Your task to perform on an android device: check battery use Image 0: 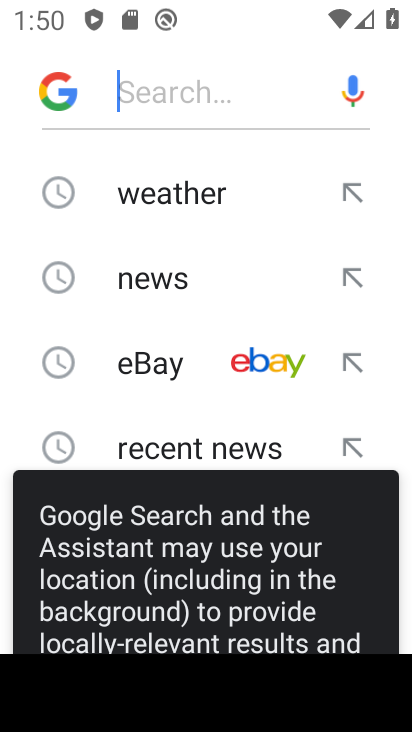
Step 0: press back button
Your task to perform on an android device: check battery use Image 1: 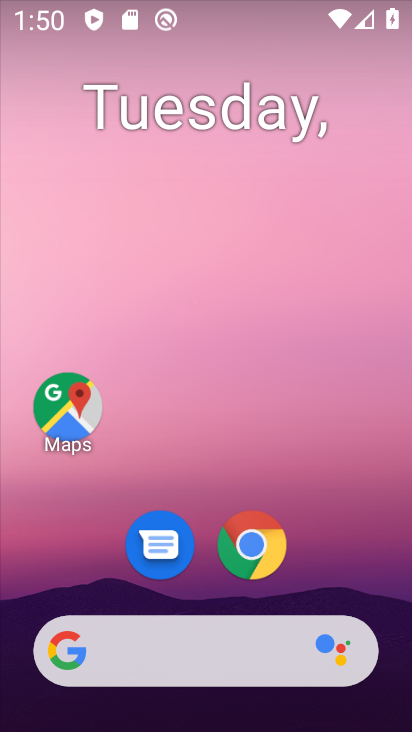
Step 1: drag from (363, 545) to (249, 7)
Your task to perform on an android device: check battery use Image 2: 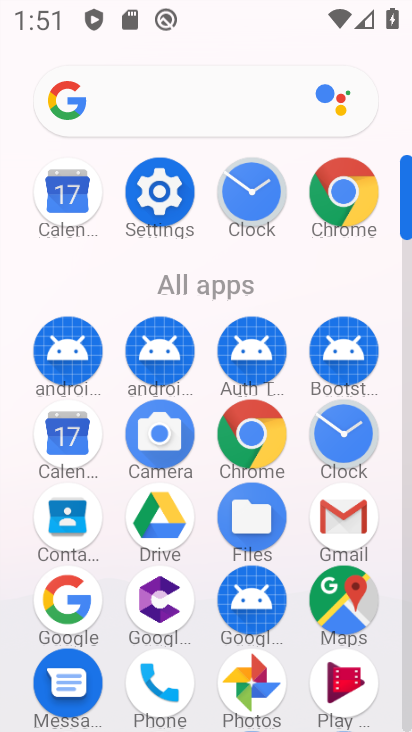
Step 2: click (159, 186)
Your task to perform on an android device: check battery use Image 3: 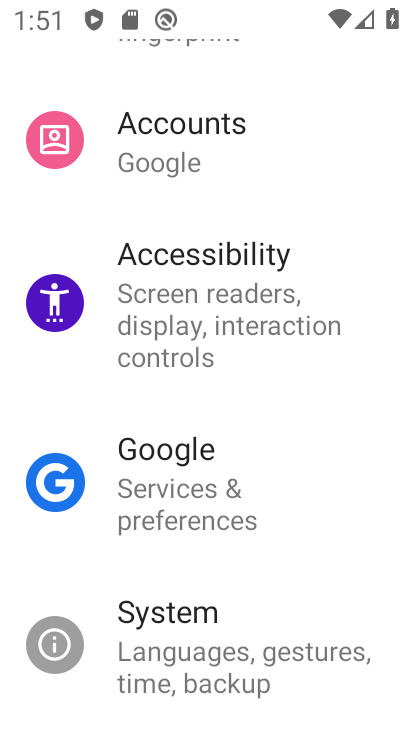
Step 3: drag from (311, 227) to (321, 642)
Your task to perform on an android device: check battery use Image 4: 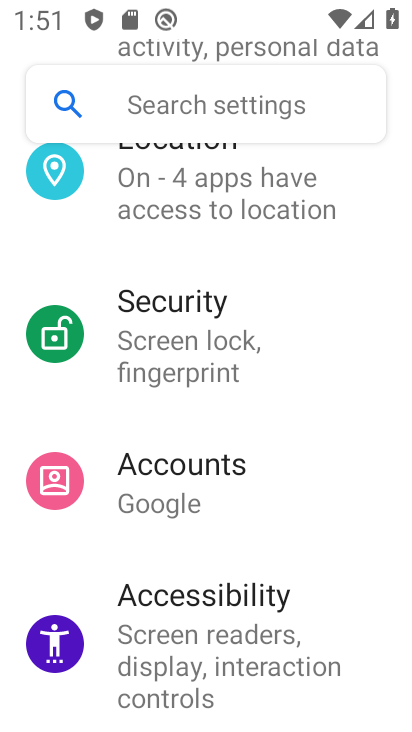
Step 4: drag from (318, 320) to (298, 628)
Your task to perform on an android device: check battery use Image 5: 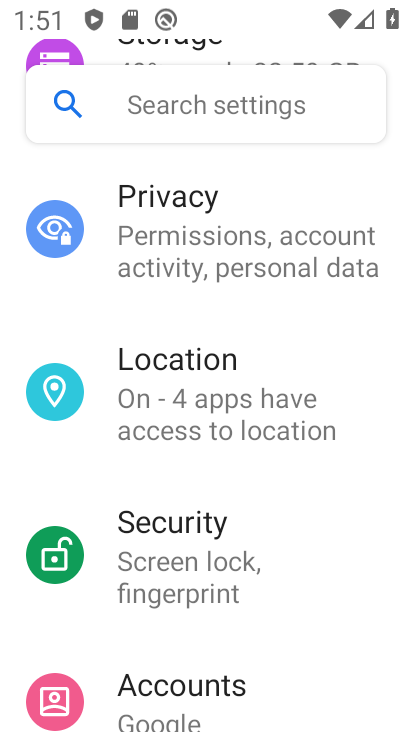
Step 5: drag from (277, 310) to (277, 646)
Your task to perform on an android device: check battery use Image 6: 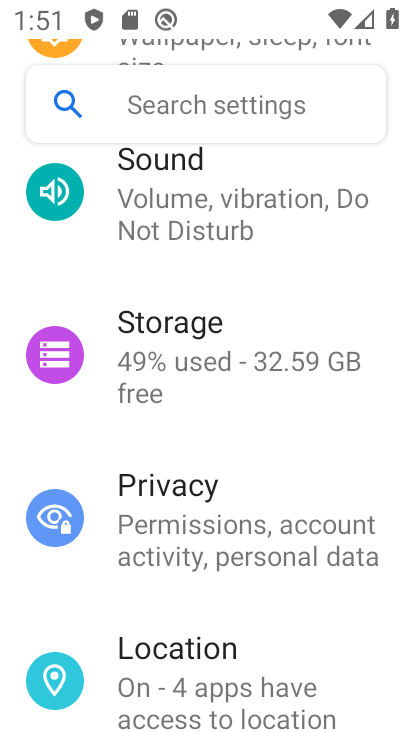
Step 6: drag from (267, 310) to (263, 648)
Your task to perform on an android device: check battery use Image 7: 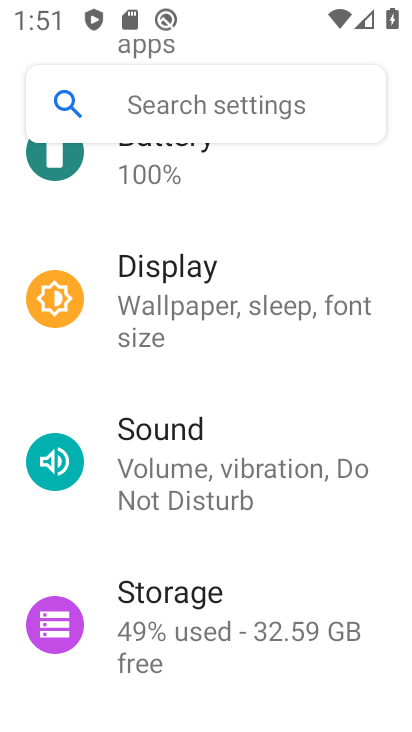
Step 7: drag from (272, 290) to (279, 635)
Your task to perform on an android device: check battery use Image 8: 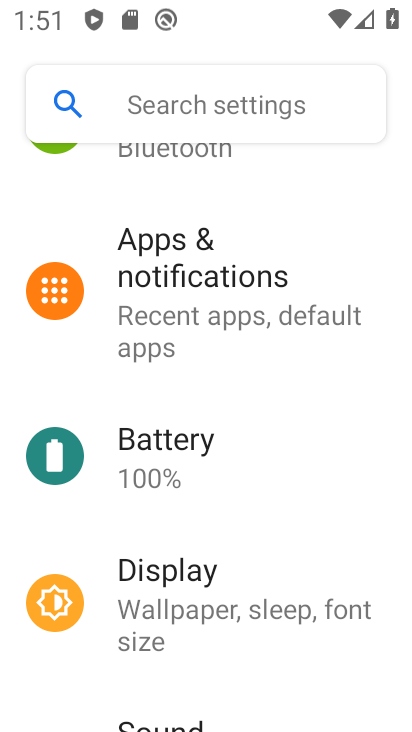
Step 8: click (214, 449)
Your task to perform on an android device: check battery use Image 9: 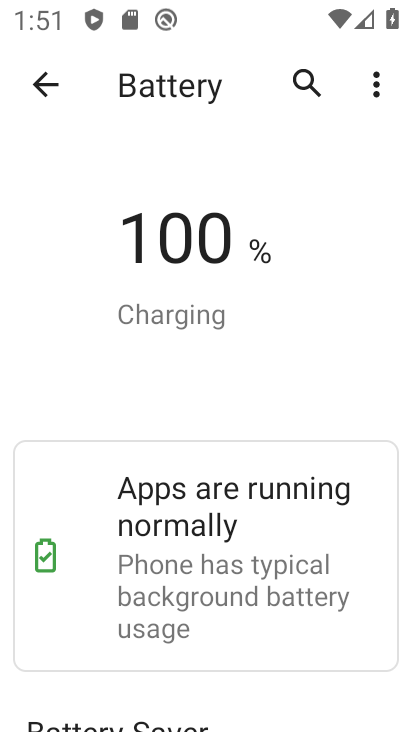
Step 9: task complete